Your task to perform on an android device: remove spam from my inbox in the gmail app Image 0: 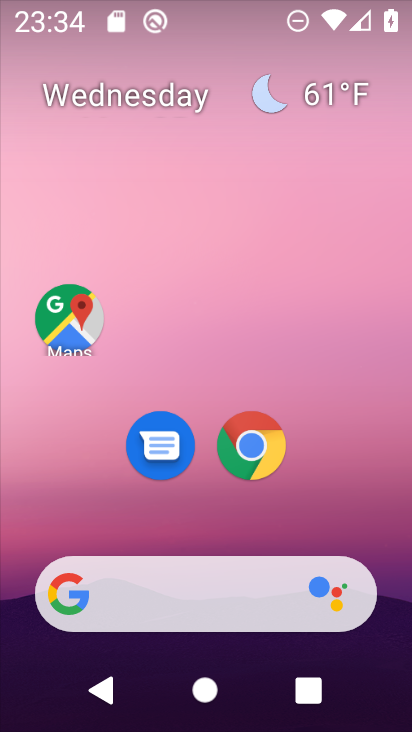
Step 0: press home button
Your task to perform on an android device: remove spam from my inbox in the gmail app Image 1: 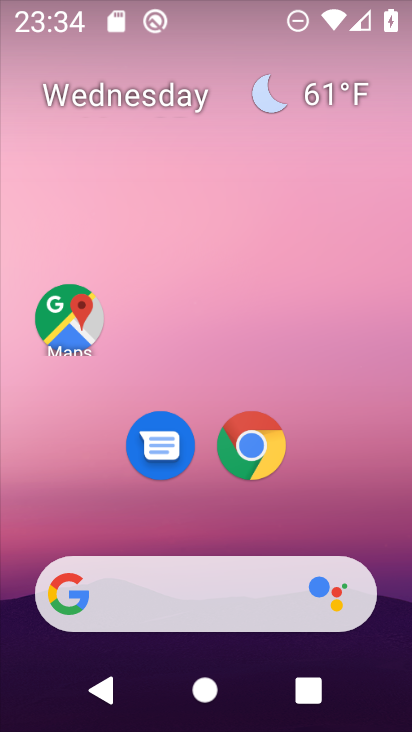
Step 1: drag from (375, 520) to (368, 130)
Your task to perform on an android device: remove spam from my inbox in the gmail app Image 2: 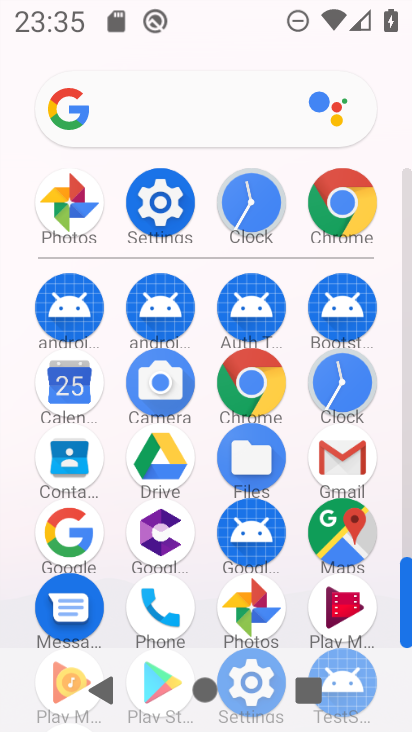
Step 2: click (333, 478)
Your task to perform on an android device: remove spam from my inbox in the gmail app Image 3: 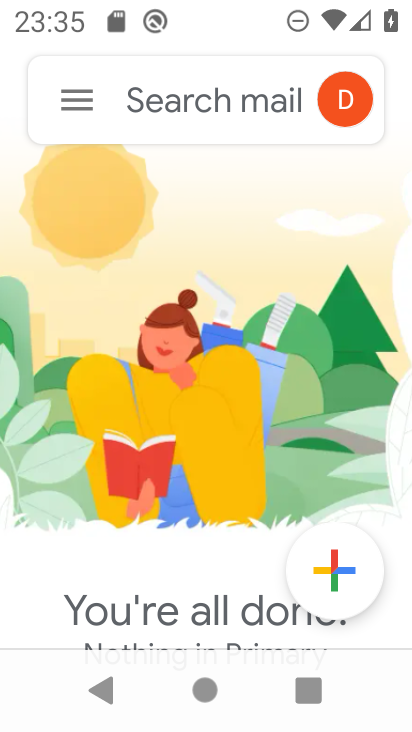
Step 3: click (64, 90)
Your task to perform on an android device: remove spam from my inbox in the gmail app Image 4: 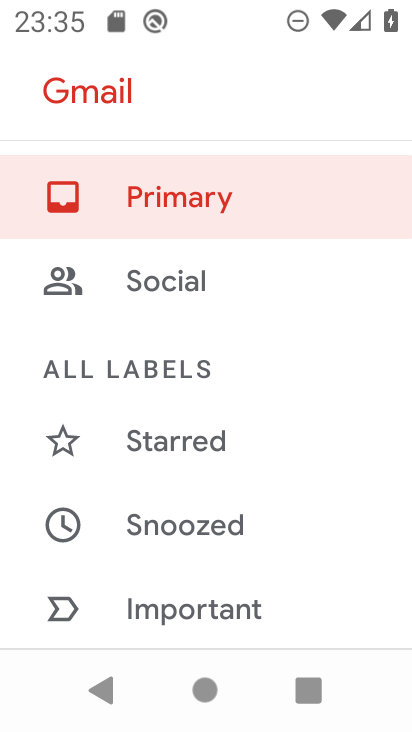
Step 4: drag from (209, 578) to (254, 268)
Your task to perform on an android device: remove spam from my inbox in the gmail app Image 5: 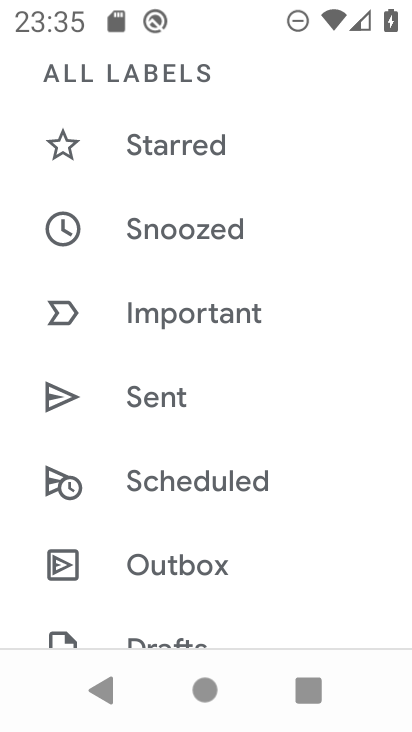
Step 5: drag from (285, 572) to (291, 244)
Your task to perform on an android device: remove spam from my inbox in the gmail app Image 6: 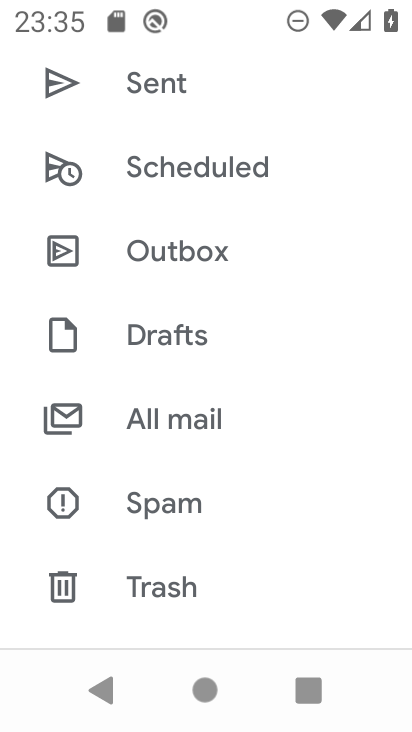
Step 6: drag from (242, 524) to (266, 316)
Your task to perform on an android device: remove spam from my inbox in the gmail app Image 7: 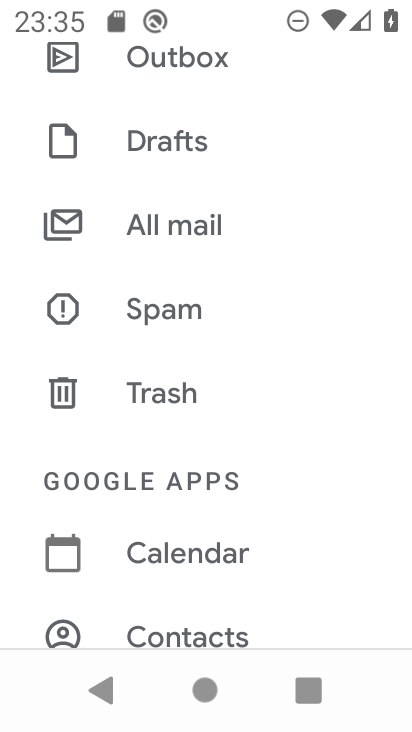
Step 7: click (180, 320)
Your task to perform on an android device: remove spam from my inbox in the gmail app Image 8: 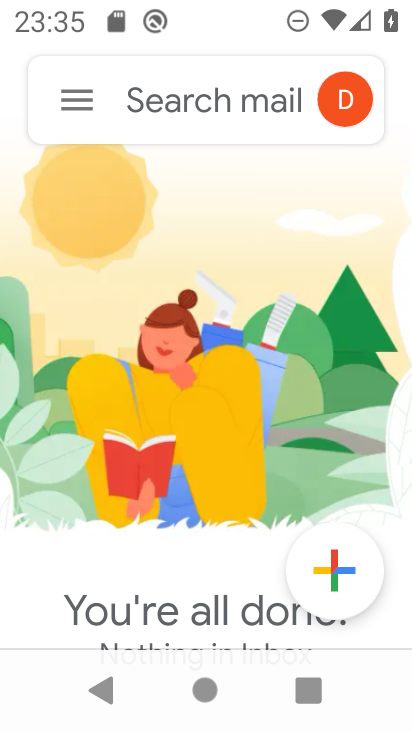
Step 8: task complete